Your task to perform on an android device: open wifi settings Image 0: 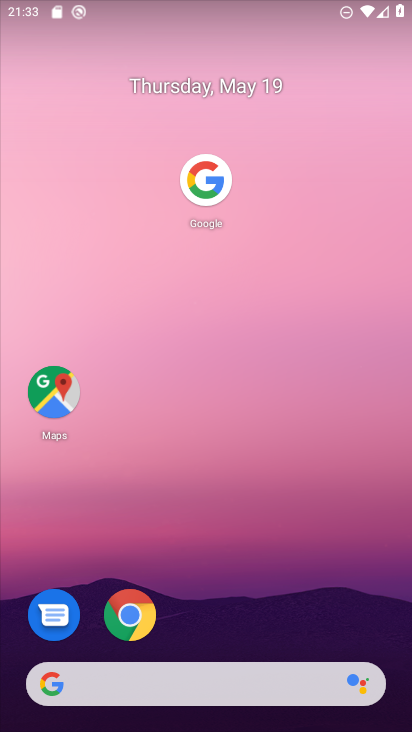
Step 0: drag from (244, 592) to (286, 101)
Your task to perform on an android device: open wifi settings Image 1: 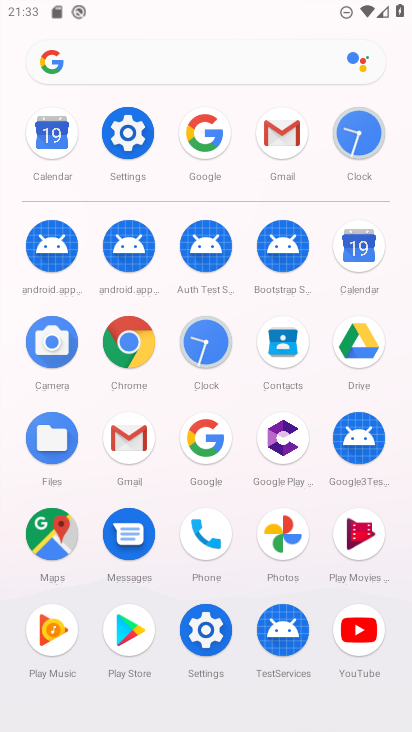
Step 1: click (124, 135)
Your task to perform on an android device: open wifi settings Image 2: 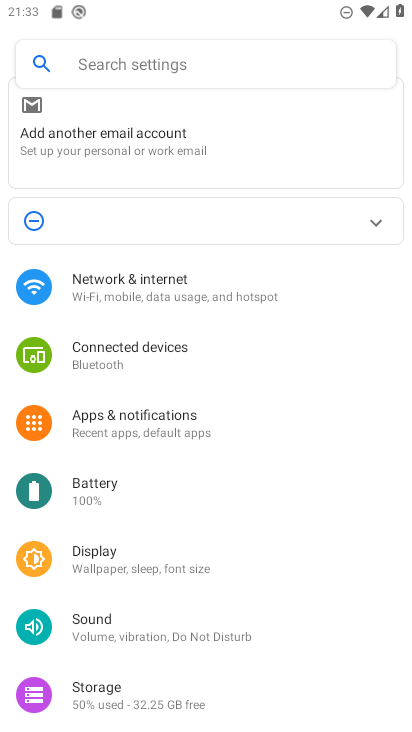
Step 2: click (152, 288)
Your task to perform on an android device: open wifi settings Image 3: 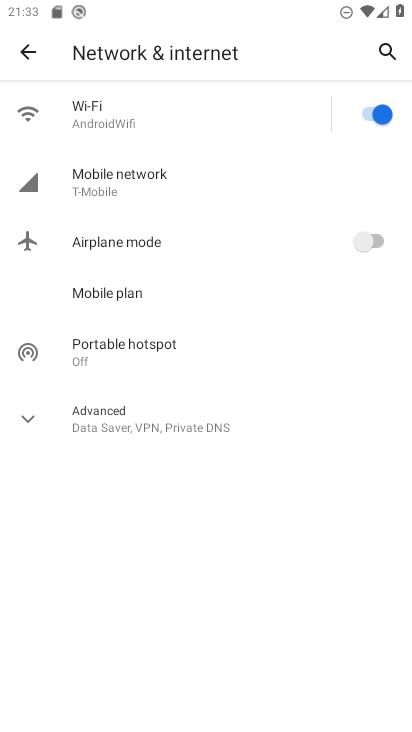
Step 3: click (136, 112)
Your task to perform on an android device: open wifi settings Image 4: 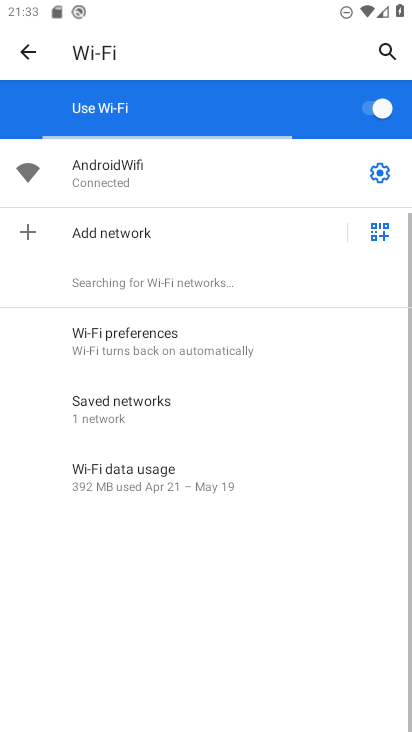
Step 4: click (156, 175)
Your task to perform on an android device: open wifi settings Image 5: 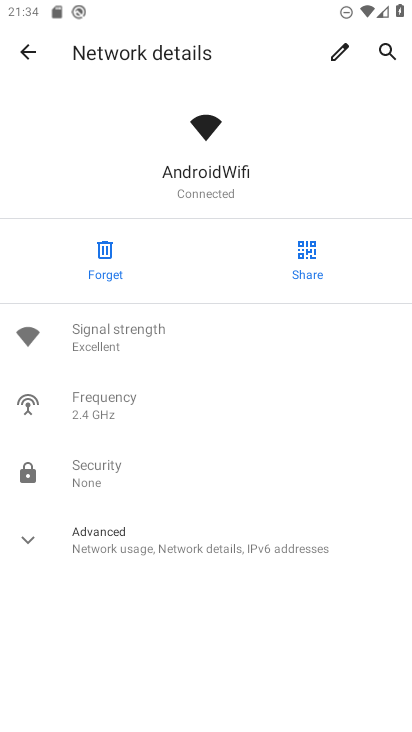
Step 5: task complete